Your task to perform on an android device: Open Wikipedia Image 0: 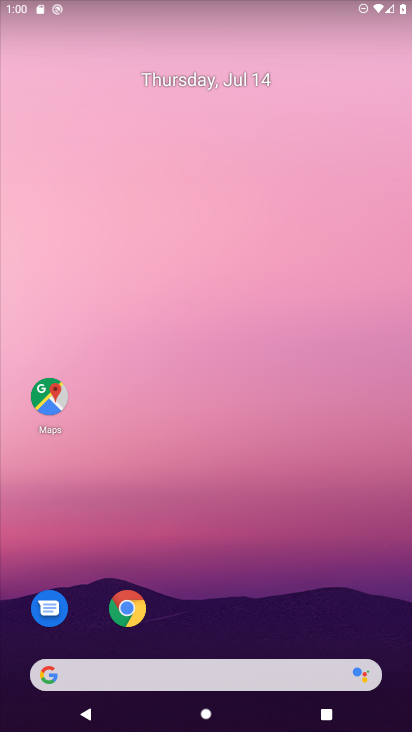
Step 0: drag from (229, 711) to (193, 80)
Your task to perform on an android device: Open Wikipedia Image 1: 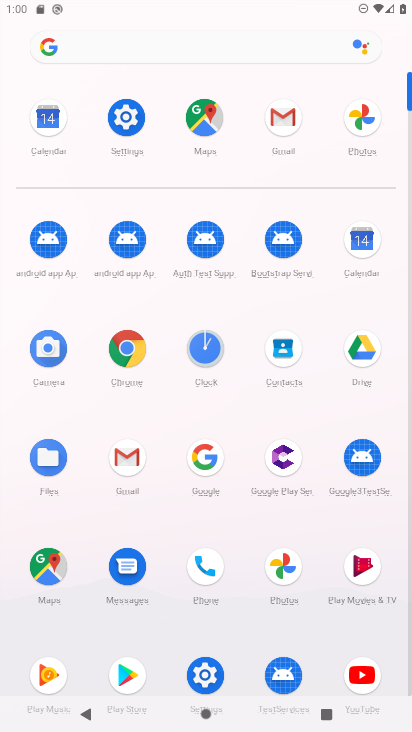
Step 1: click (136, 350)
Your task to perform on an android device: Open Wikipedia Image 2: 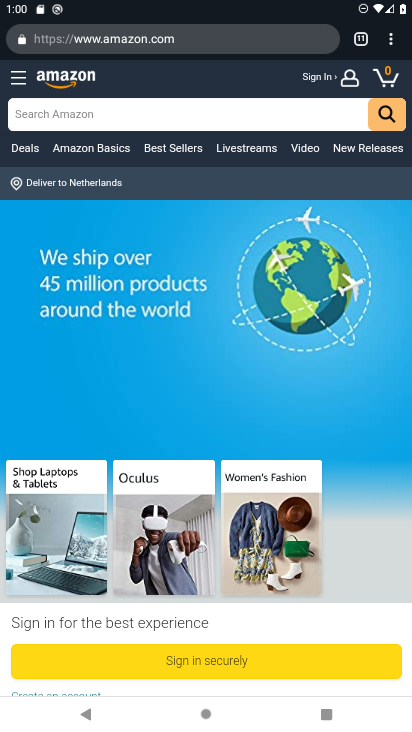
Step 2: click (392, 48)
Your task to perform on an android device: Open Wikipedia Image 3: 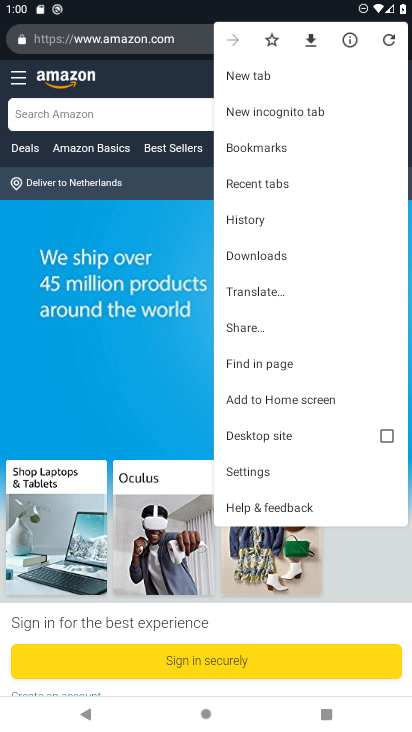
Step 3: click (253, 71)
Your task to perform on an android device: Open Wikipedia Image 4: 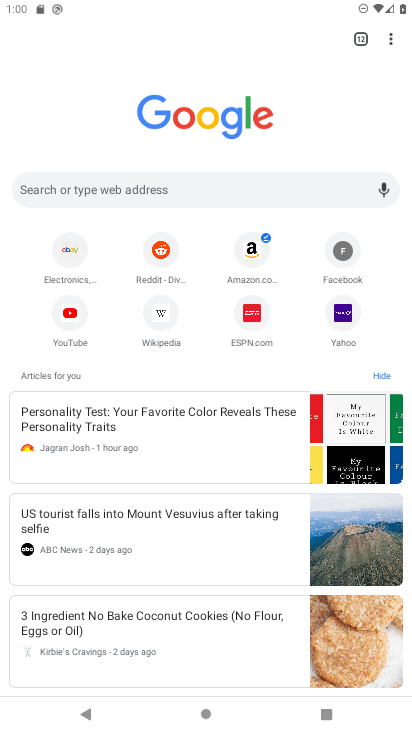
Step 4: click (159, 312)
Your task to perform on an android device: Open Wikipedia Image 5: 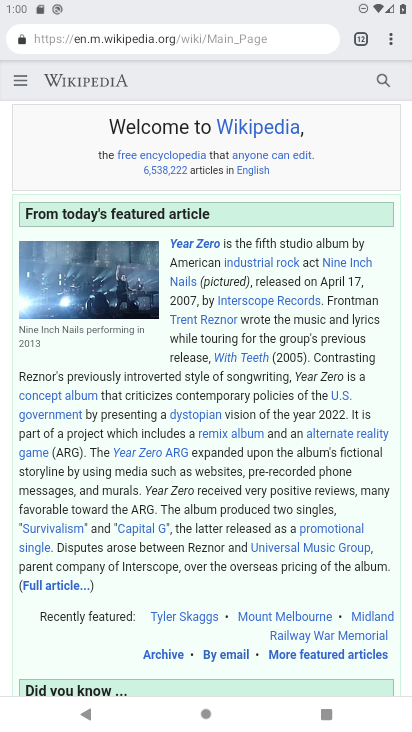
Step 5: task complete